Your task to perform on an android device: Open Google Chrome and click the shortcut for Amazon.com Image 0: 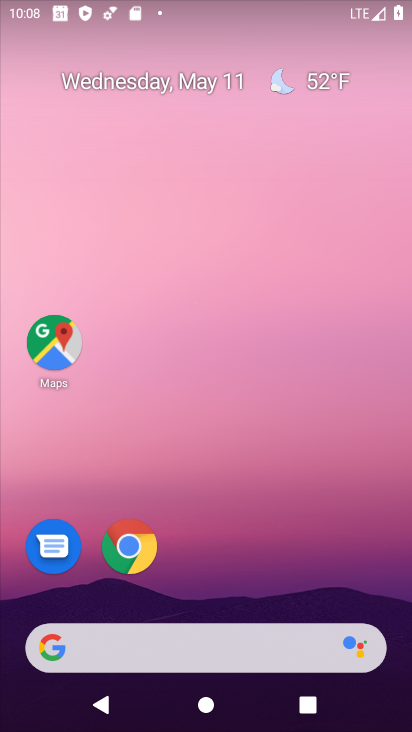
Step 0: click (131, 546)
Your task to perform on an android device: Open Google Chrome and click the shortcut for Amazon.com Image 1: 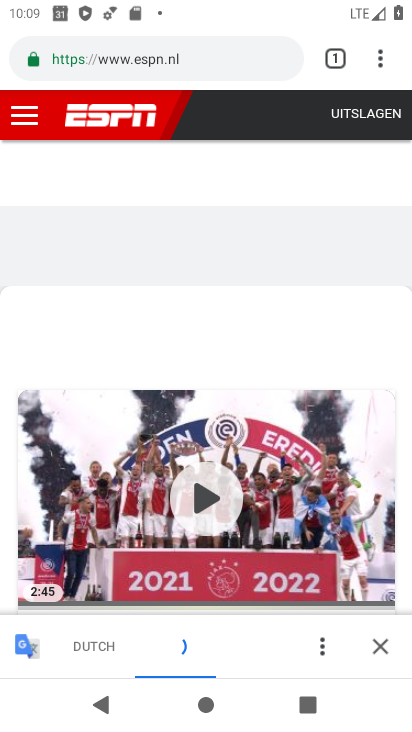
Step 1: click (344, 52)
Your task to perform on an android device: Open Google Chrome and click the shortcut for Amazon.com Image 2: 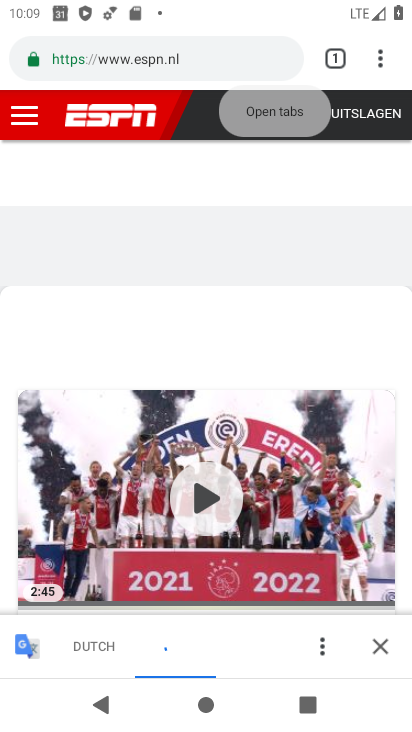
Step 2: click (333, 63)
Your task to perform on an android device: Open Google Chrome and click the shortcut for Amazon.com Image 3: 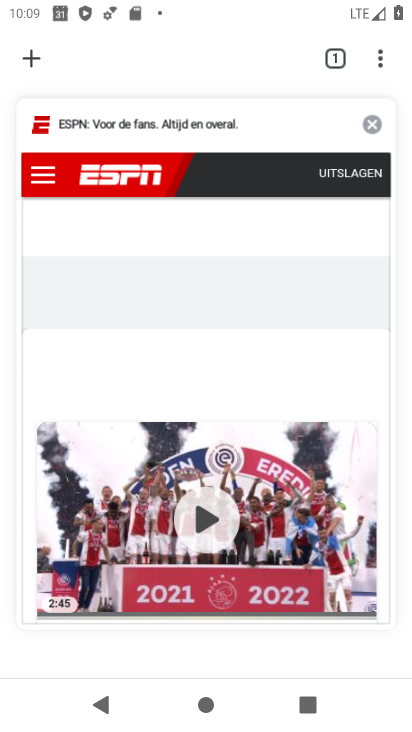
Step 3: click (34, 64)
Your task to perform on an android device: Open Google Chrome and click the shortcut for Amazon.com Image 4: 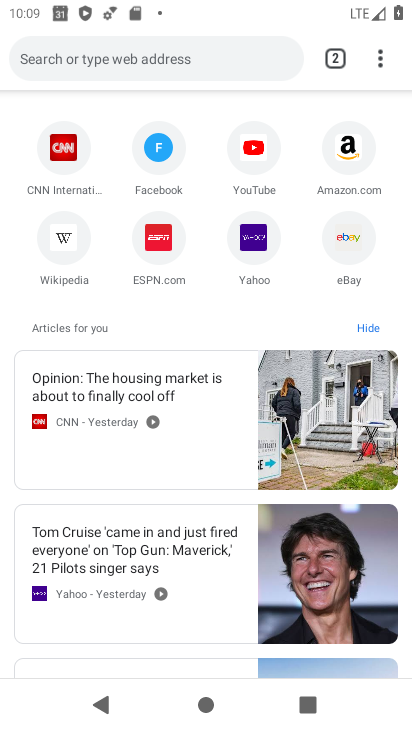
Step 4: click (337, 165)
Your task to perform on an android device: Open Google Chrome and click the shortcut for Amazon.com Image 5: 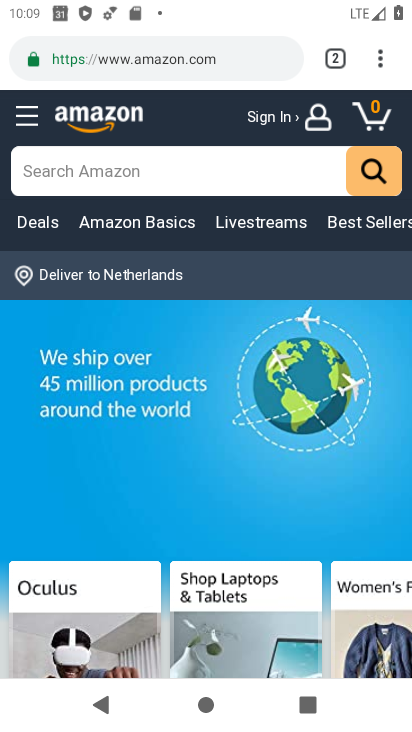
Step 5: task complete